Your task to perform on an android device: What is the news today? Image 0: 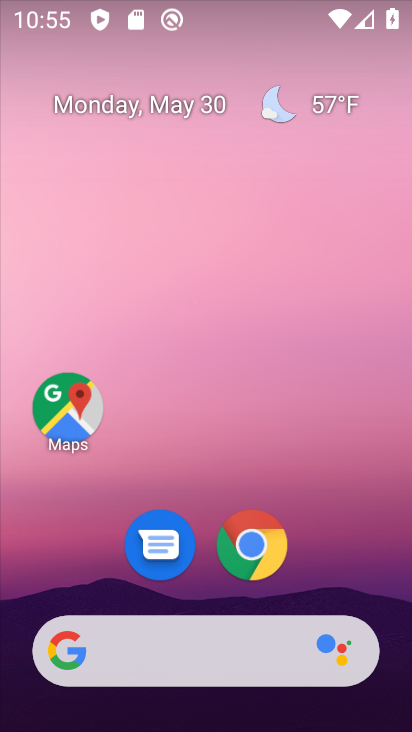
Step 0: press home button
Your task to perform on an android device: What is the news today? Image 1: 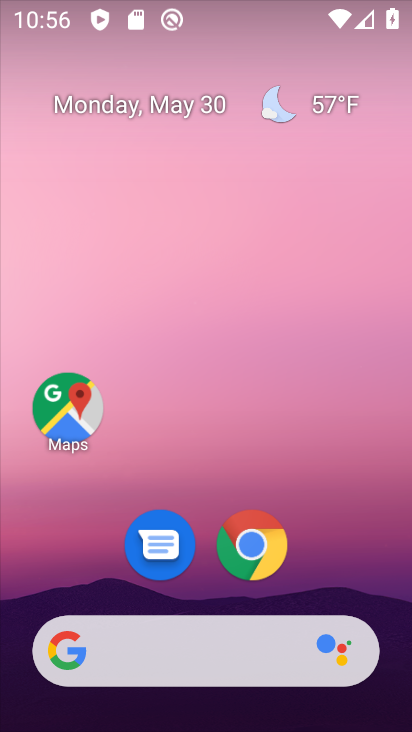
Step 1: click (255, 634)
Your task to perform on an android device: What is the news today? Image 2: 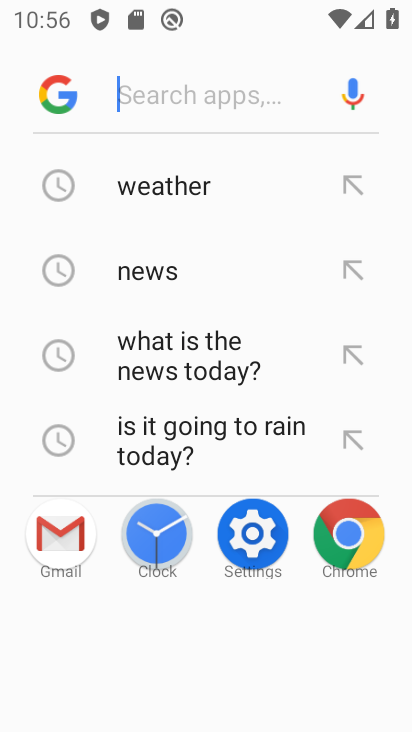
Step 2: click (158, 267)
Your task to perform on an android device: What is the news today? Image 3: 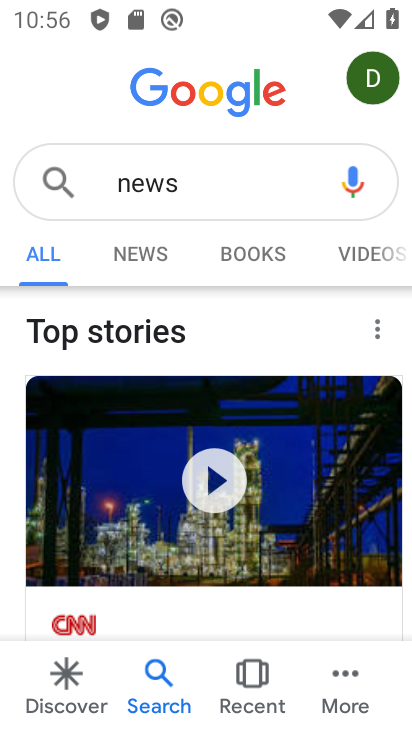
Step 3: task complete